Your task to perform on an android device: Open privacy settings Image 0: 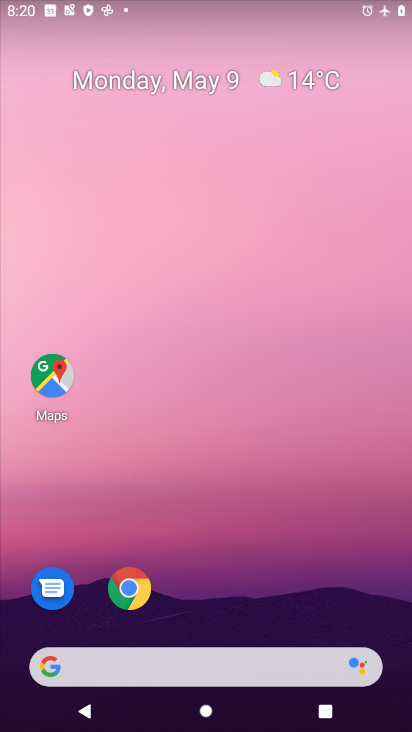
Step 0: drag from (326, 601) to (223, 15)
Your task to perform on an android device: Open privacy settings Image 1: 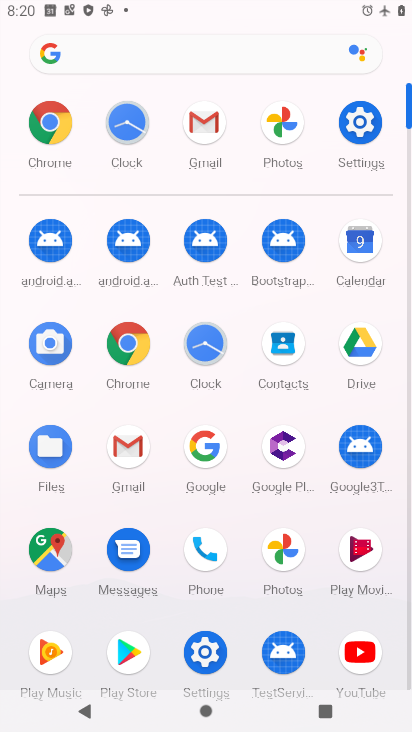
Step 1: click (191, 653)
Your task to perform on an android device: Open privacy settings Image 2: 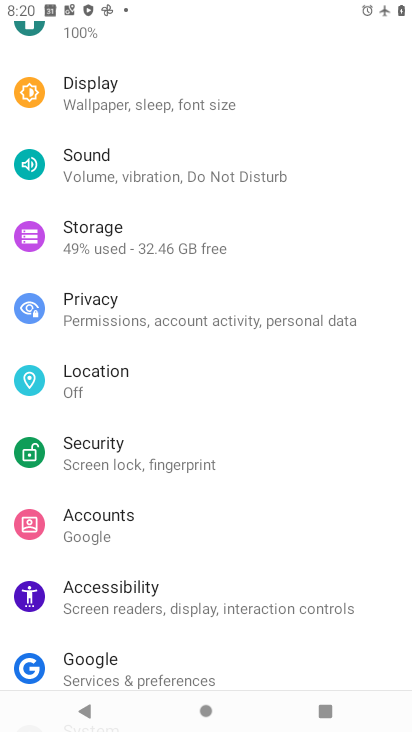
Step 2: click (152, 322)
Your task to perform on an android device: Open privacy settings Image 3: 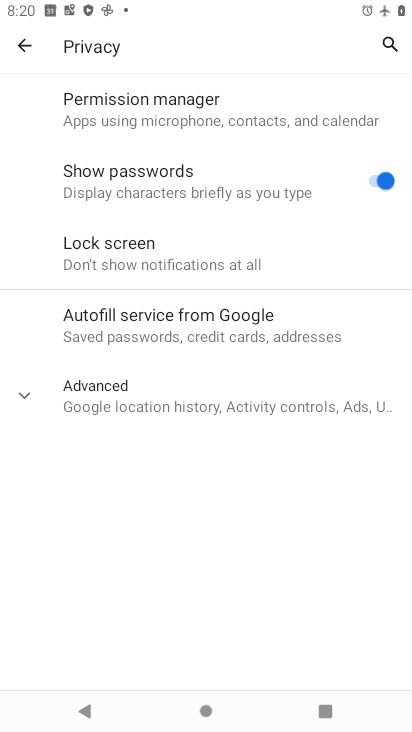
Step 3: task complete